Your task to perform on an android device: stop showing notifications on the lock screen Image 0: 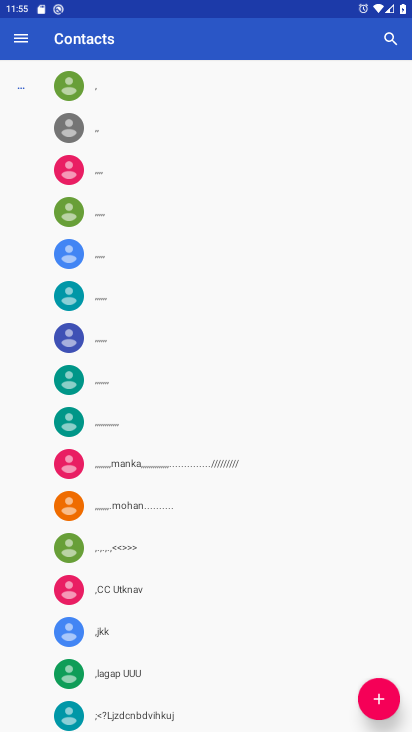
Step 0: drag from (218, 654) to (266, 123)
Your task to perform on an android device: stop showing notifications on the lock screen Image 1: 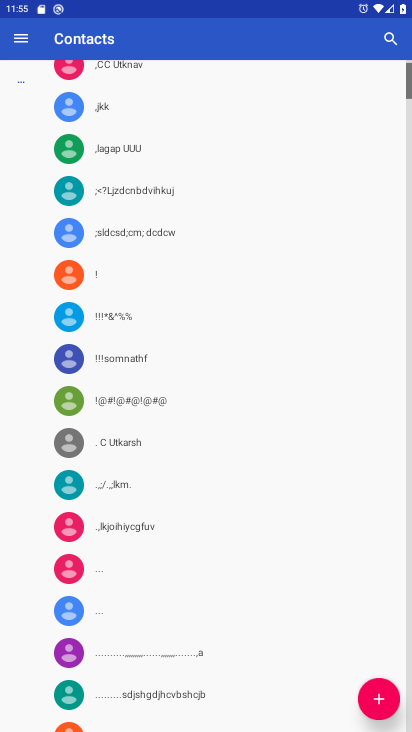
Step 1: press home button
Your task to perform on an android device: stop showing notifications on the lock screen Image 2: 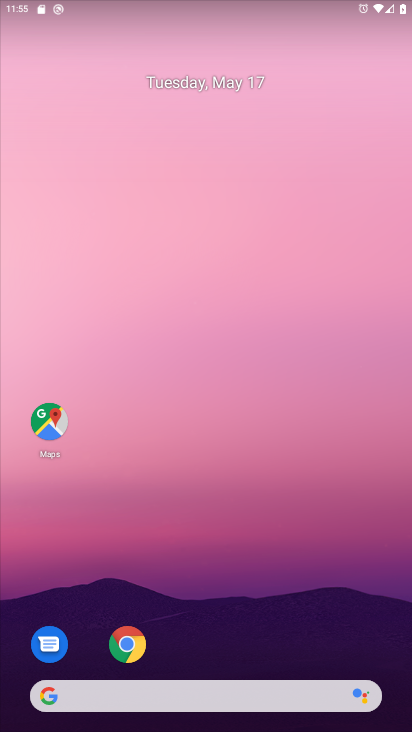
Step 2: drag from (225, 658) to (269, 74)
Your task to perform on an android device: stop showing notifications on the lock screen Image 3: 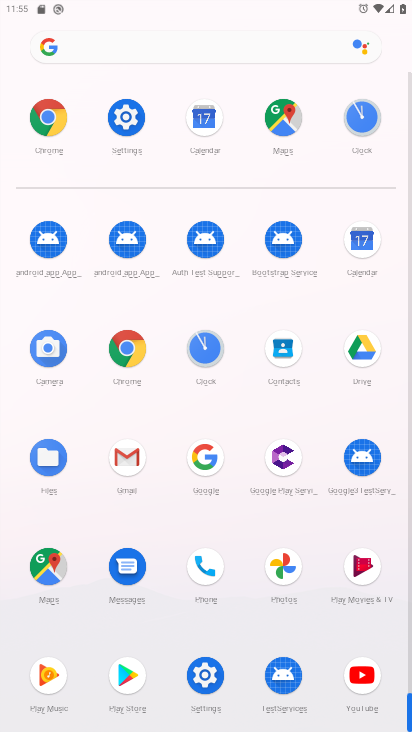
Step 3: click (120, 109)
Your task to perform on an android device: stop showing notifications on the lock screen Image 4: 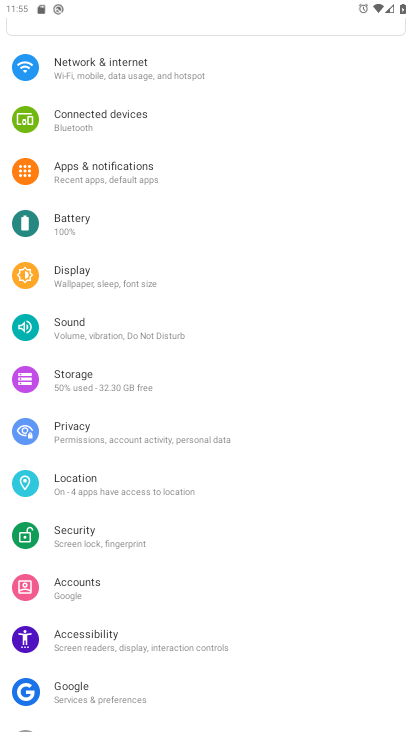
Step 4: click (172, 164)
Your task to perform on an android device: stop showing notifications on the lock screen Image 5: 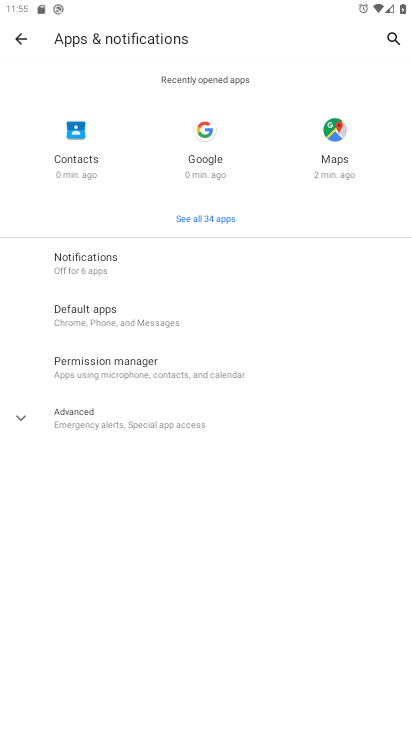
Step 5: click (128, 256)
Your task to perform on an android device: stop showing notifications on the lock screen Image 6: 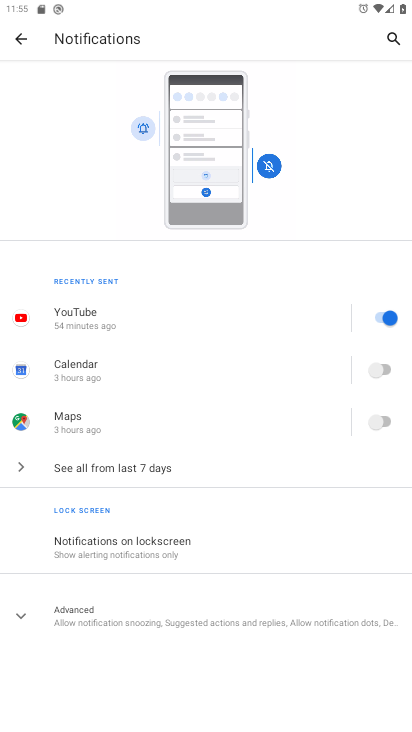
Step 6: click (151, 550)
Your task to perform on an android device: stop showing notifications on the lock screen Image 7: 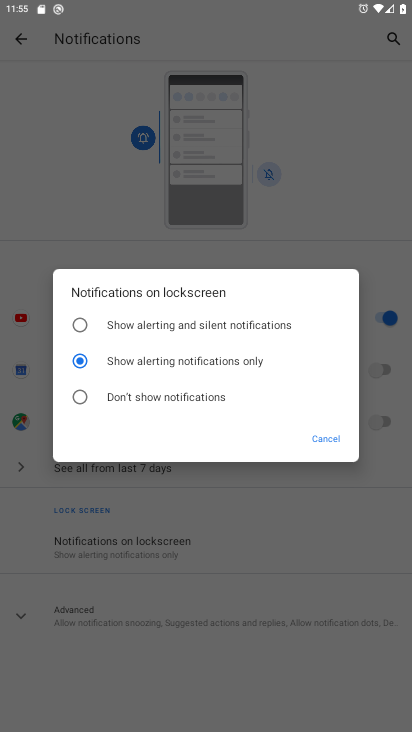
Step 7: click (80, 392)
Your task to perform on an android device: stop showing notifications on the lock screen Image 8: 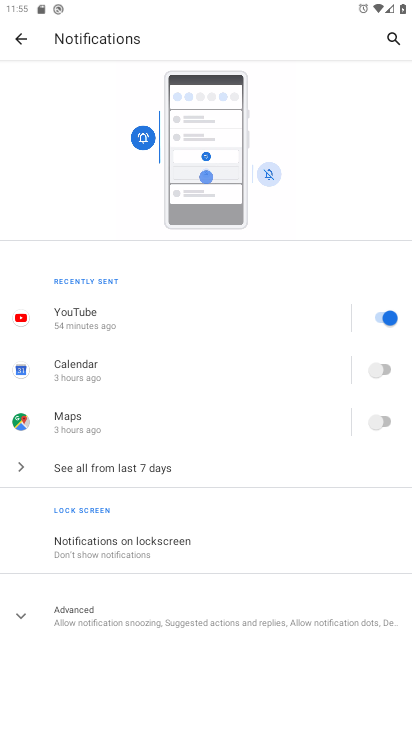
Step 8: task complete